Your task to perform on an android device: Search for seafood restaurants on Google Maps Image 0: 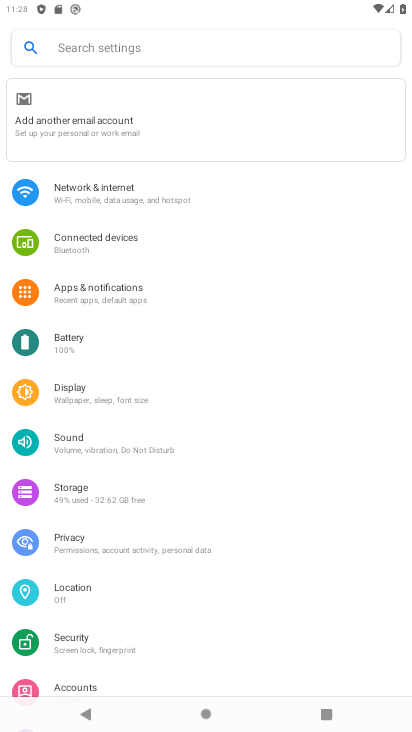
Step 0: press home button
Your task to perform on an android device: Search for seafood restaurants on Google Maps Image 1: 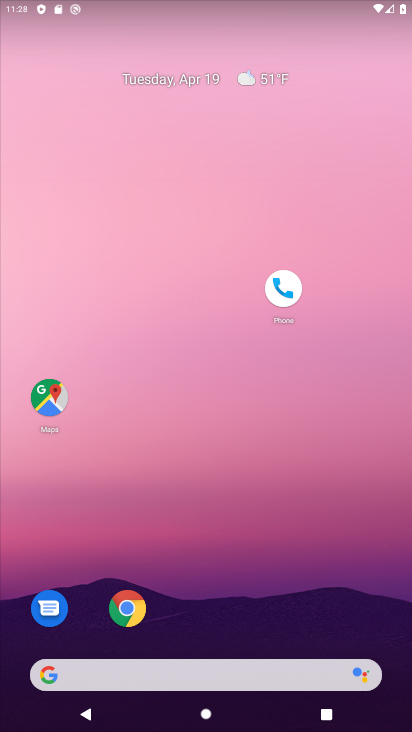
Step 1: drag from (208, 606) to (115, 1)
Your task to perform on an android device: Search for seafood restaurants on Google Maps Image 2: 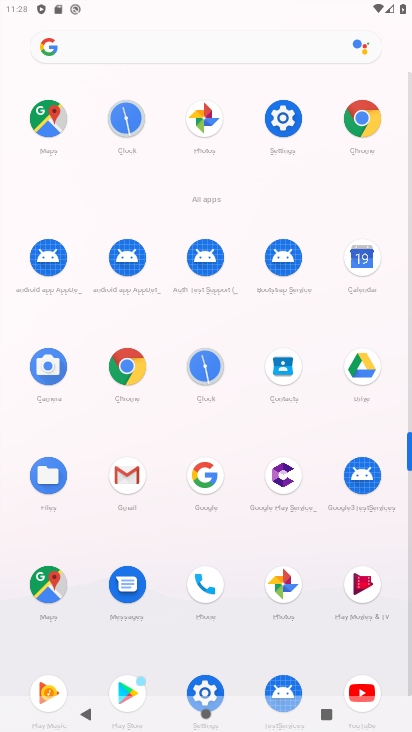
Step 2: click (44, 593)
Your task to perform on an android device: Search for seafood restaurants on Google Maps Image 3: 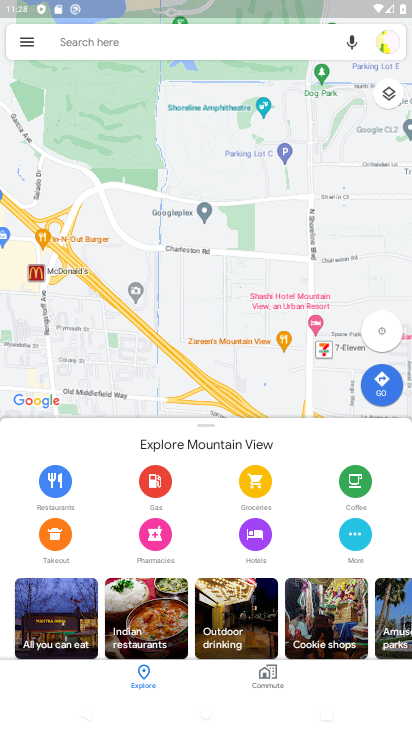
Step 3: click (103, 41)
Your task to perform on an android device: Search for seafood restaurants on Google Maps Image 4: 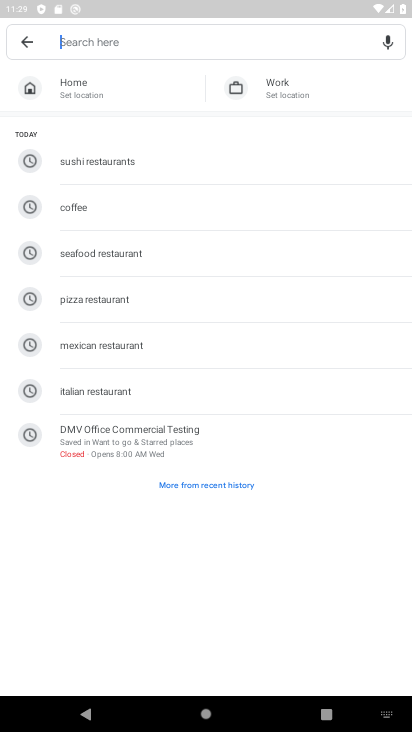
Step 4: type "seafood restaurants"
Your task to perform on an android device: Search for seafood restaurants on Google Maps Image 5: 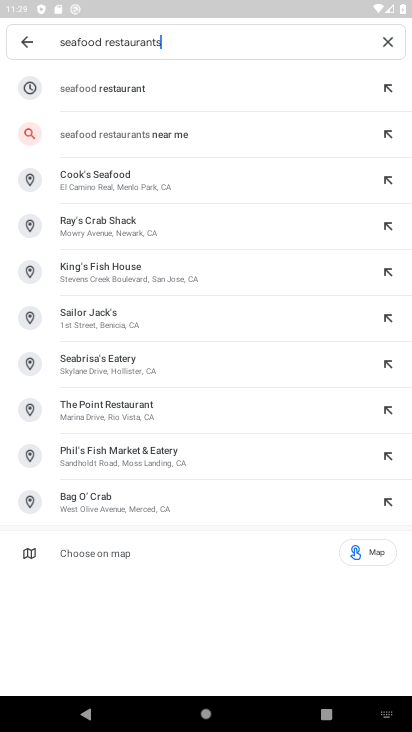
Step 5: click (141, 102)
Your task to perform on an android device: Search for seafood restaurants on Google Maps Image 6: 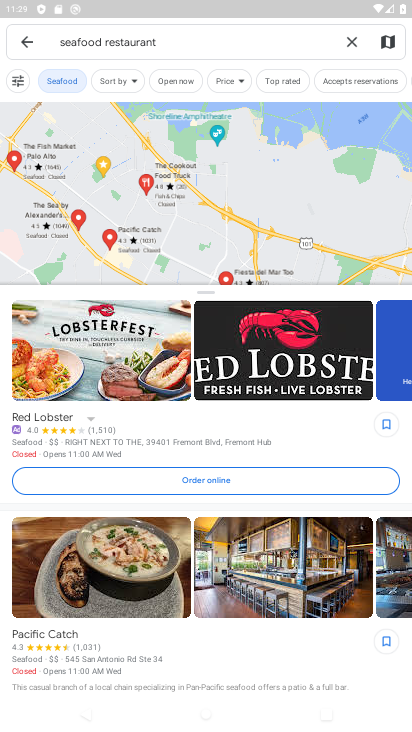
Step 6: task complete